Your task to perform on an android device: toggle pop-ups in chrome Image 0: 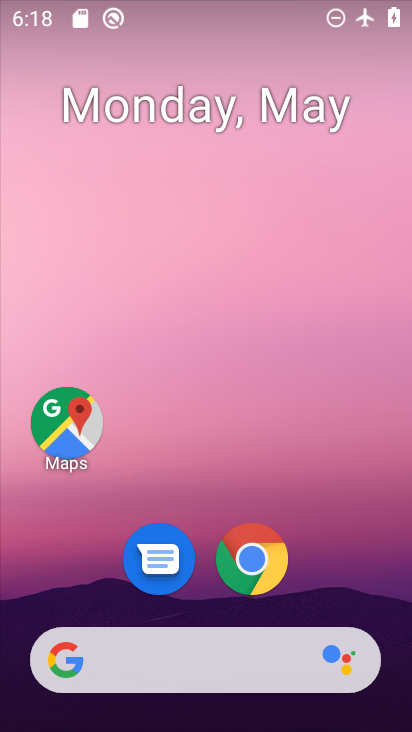
Step 0: click (254, 560)
Your task to perform on an android device: toggle pop-ups in chrome Image 1: 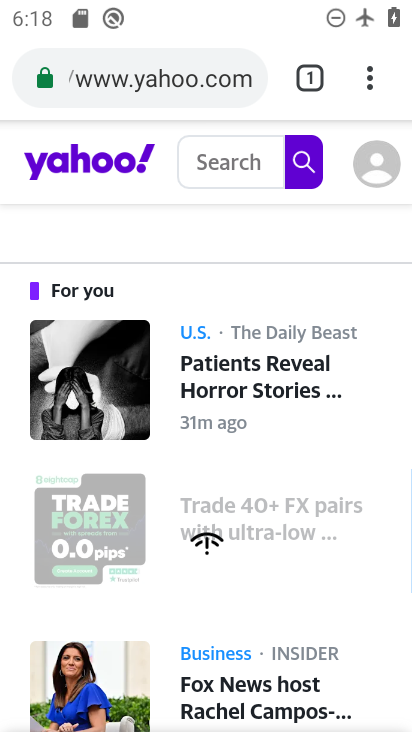
Step 1: click (372, 78)
Your task to perform on an android device: toggle pop-ups in chrome Image 2: 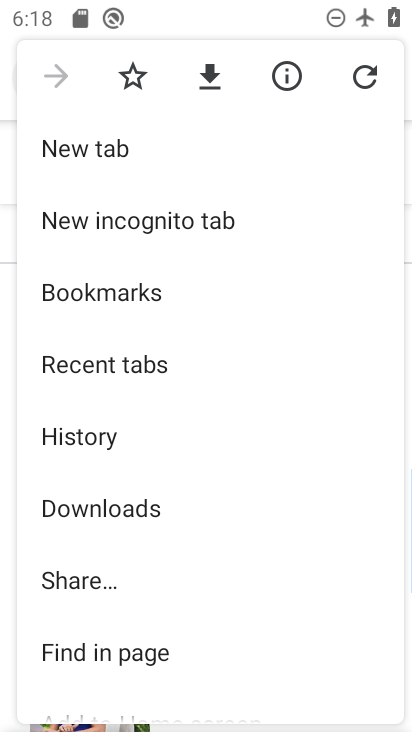
Step 2: drag from (237, 567) to (215, 224)
Your task to perform on an android device: toggle pop-ups in chrome Image 3: 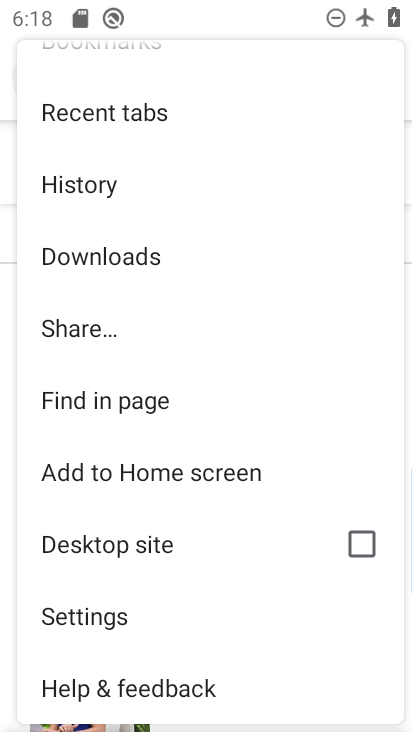
Step 3: click (85, 612)
Your task to perform on an android device: toggle pop-ups in chrome Image 4: 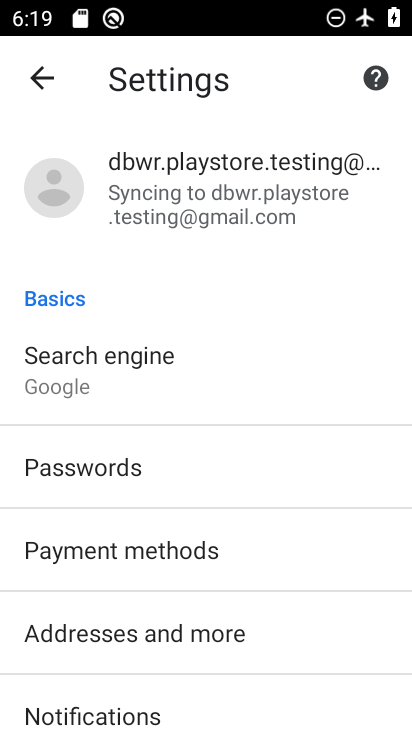
Step 4: drag from (267, 586) to (264, 346)
Your task to perform on an android device: toggle pop-ups in chrome Image 5: 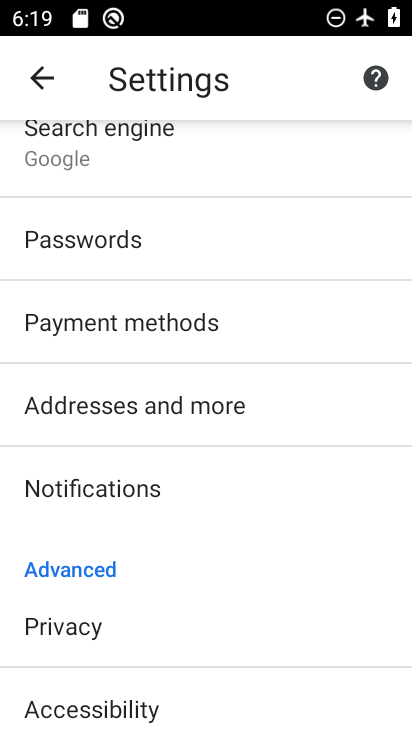
Step 5: drag from (272, 612) to (273, 213)
Your task to perform on an android device: toggle pop-ups in chrome Image 6: 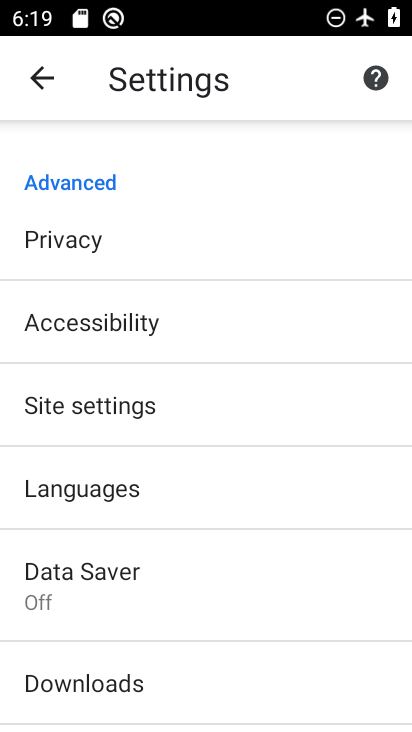
Step 6: click (107, 412)
Your task to perform on an android device: toggle pop-ups in chrome Image 7: 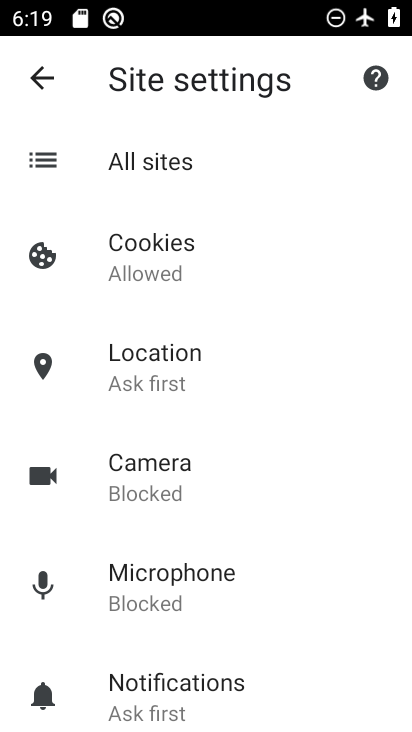
Step 7: drag from (272, 514) to (260, 228)
Your task to perform on an android device: toggle pop-ups in chrome Image 8: 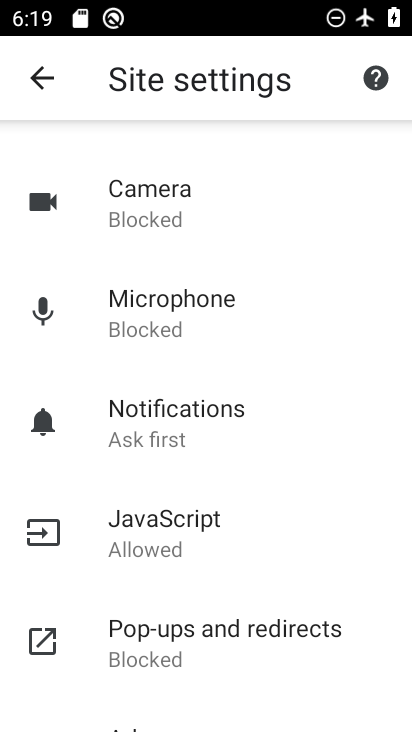
Step 8: click (167, 637)
Your task to perform on an android device: toggle pop-ups in chrome Image 9: 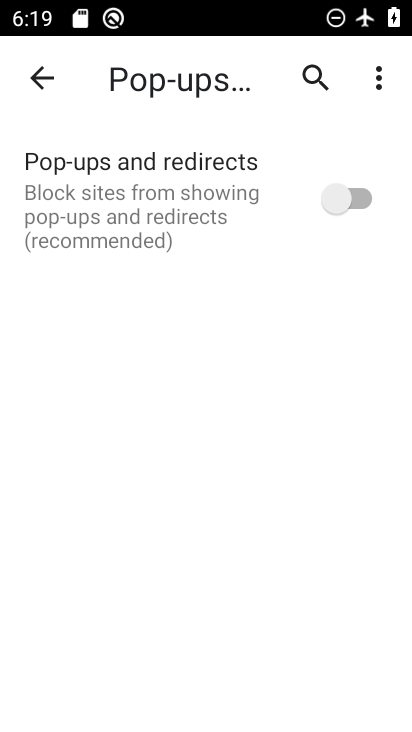
Step 9: click (344, 200)
Your task to perform on an android device: toggle pop-ups in chrome Image 10: 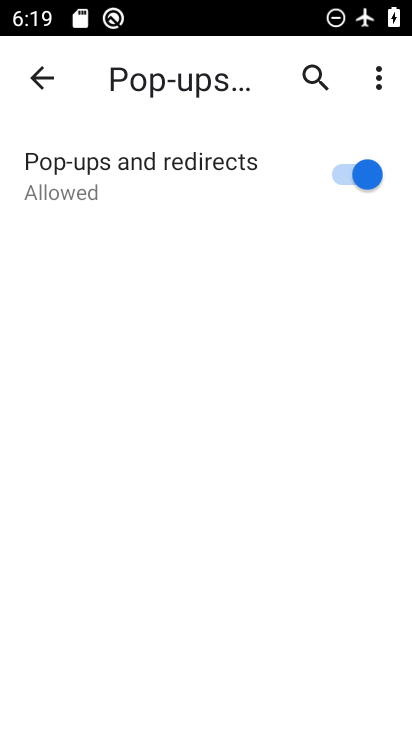
Step 10: task complete